Your task to perform on an android device: Open Google Chrome and click the shortcut for Amazon.com Image 0: 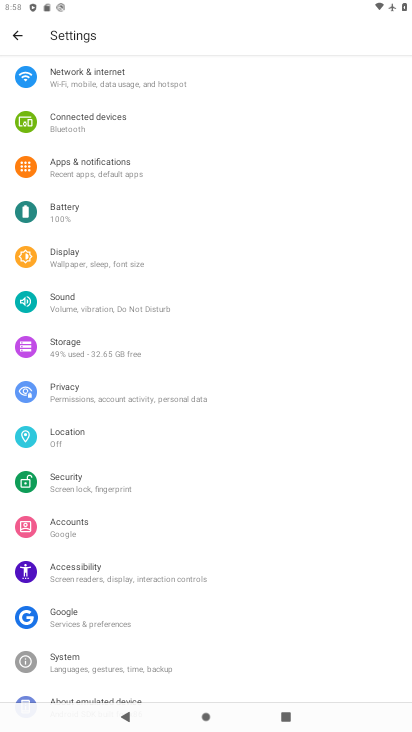
Step 0: press home button
Your task to perform on an android device: Open Google Chrome and click the shortcut for Amazon.com Image 1: 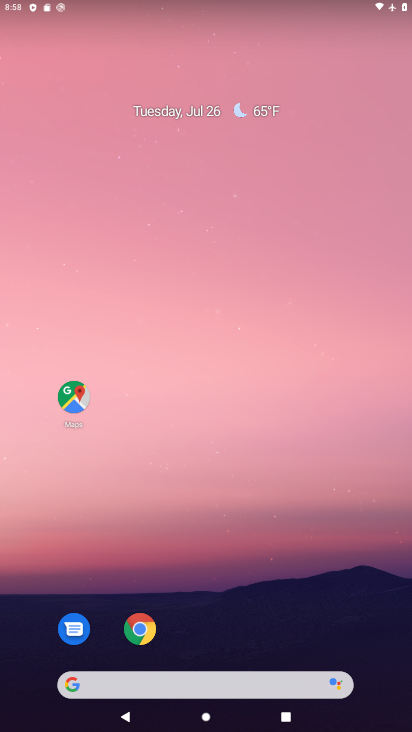
Step 1: drag from (363, 575) to (251, 22)
Your task to perform on an android device: Open Google Chrome and click the shortcut for Amazon.com Image 2: 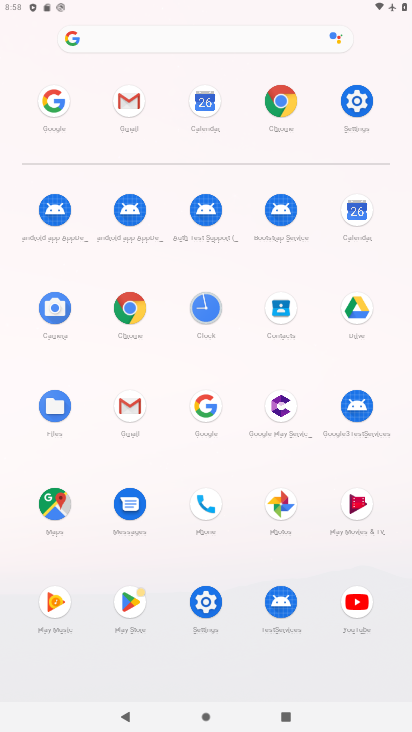
Step 2: click (277, 104)
Your task to perform on an android device: Open Google Chrome and click the shortcut for Amazon.com Image 3: 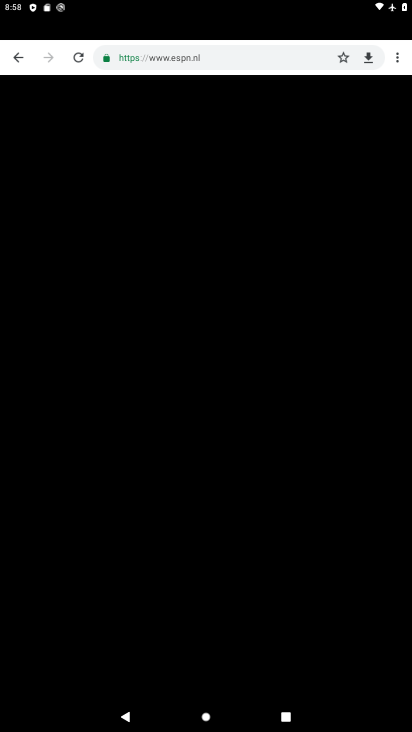
Step 3: click (214, 61)
Your task to perform on an android device: Open Google Chrome and click the shortcut for Amazon.com Image 4: 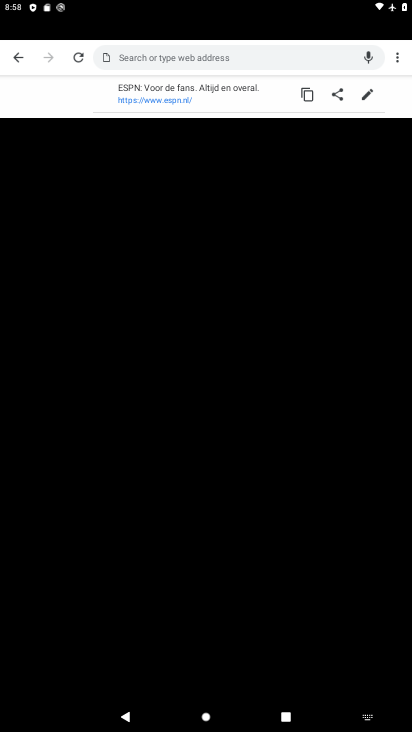
Step 4: type "amazon.com"
Your task to perform on an android device: Open Google Chrome and click the shortcut for Amazon.com Image 5: 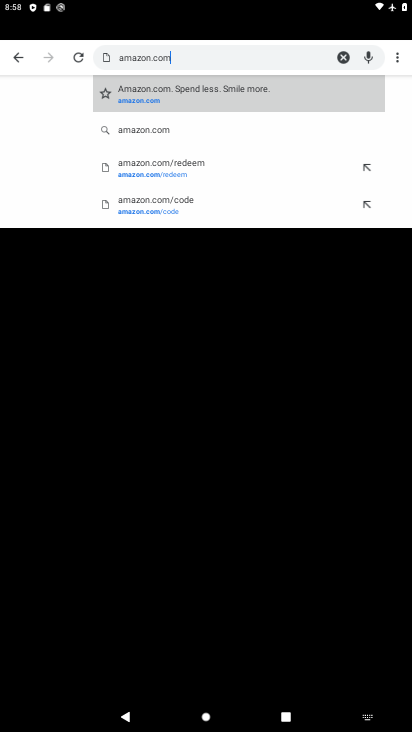
Step 5: click (192, 95)
Your task to perform on an android device: Open Google Chrome and click the shortcut for Amazon.com Image 6: 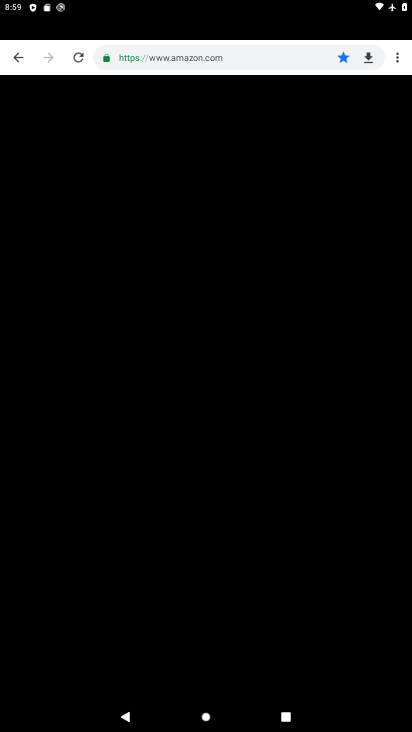
Step 6: click (264, 57)
Your task to perform on an android device: Open Google Chrome and click the shortcut for Amazon.com Image 7: 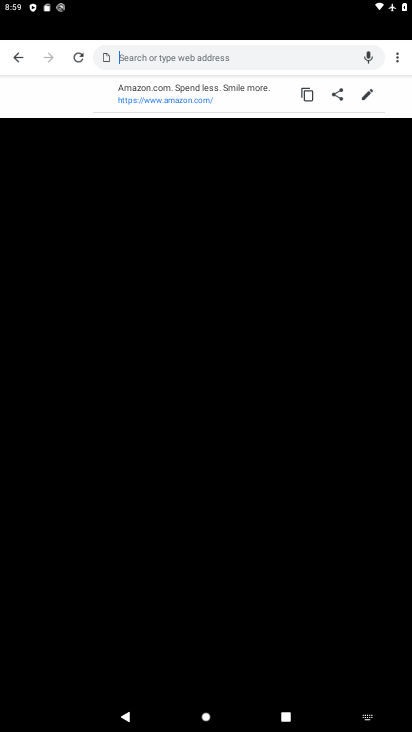
Step 7: press enter
Your task to perform on an android device: Open Google Chrome and click the shortcut for Amazon.com Image 8: 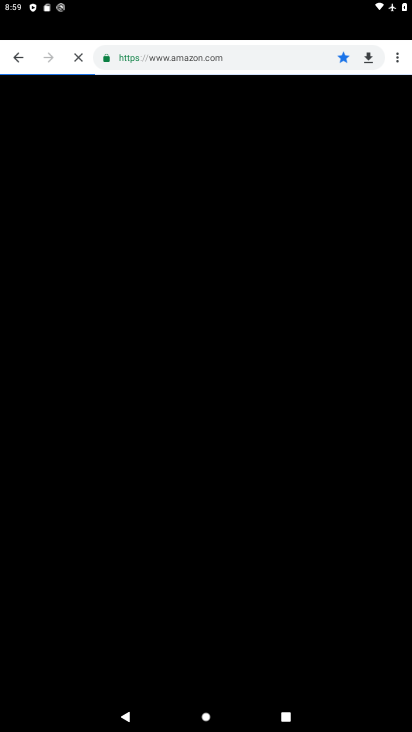
Step 8: click (165, 113)
Your task to perform on an android device: Open Google Chrome and click the shortcut for Amazon.com Image 9: 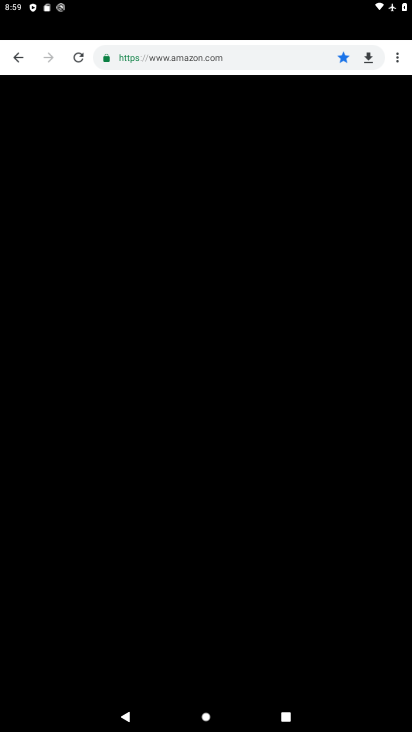
Step 9: click (227, 49)
Your task to perform on an android device: Open Google Chrome and click the shortcut for Amazon.com Image 10: 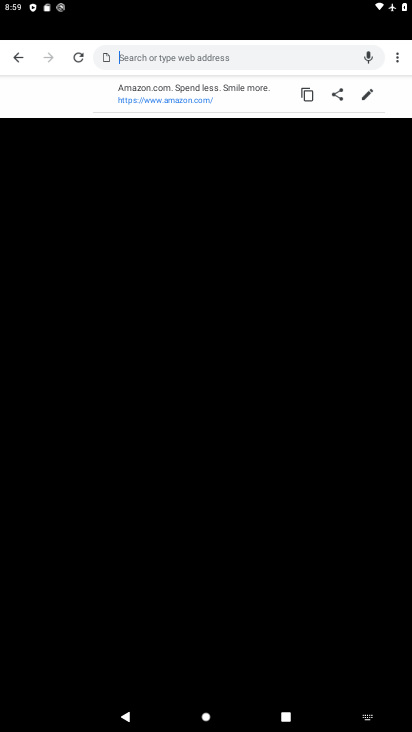
Step 10: click (221, 88)
Your task to perform on an android device: Open Google Chrome and click the shortcut for Amazon.com Image 11: 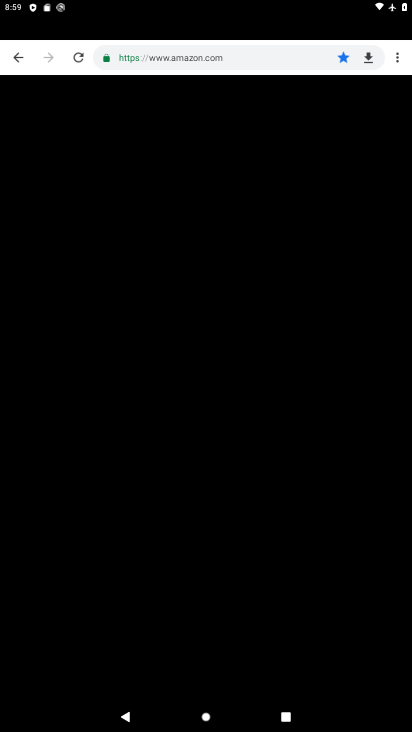
Step 11: task complete